Your task to perform on an android device: turn on location history Image 0: 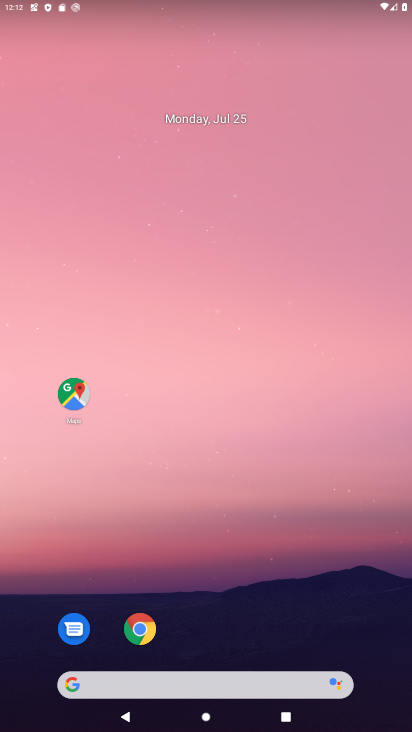
Step 0: drag from (264, 639) to (221, 33)
Your task to perform on an android device: turn on location history Image 1: 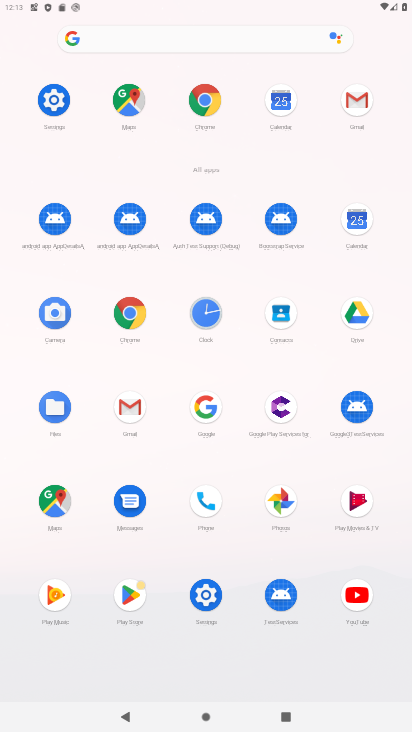
Step 1: click (146, 109)
Your task to perform on an android device: turn on location history Image 2: 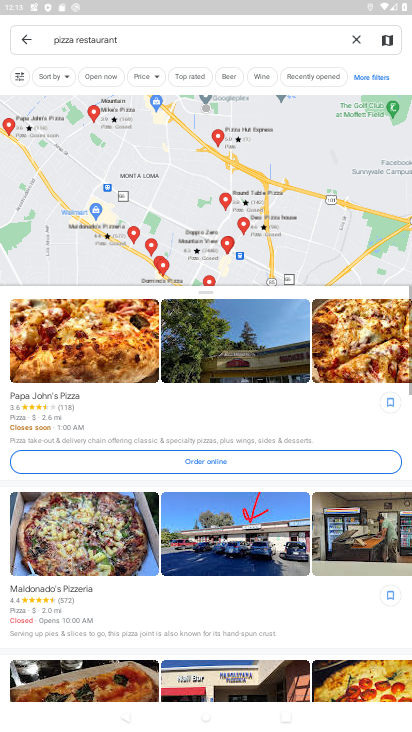
Step 2: click (28, 40)
Your task to perform on an android device: turn on location history Image 3: 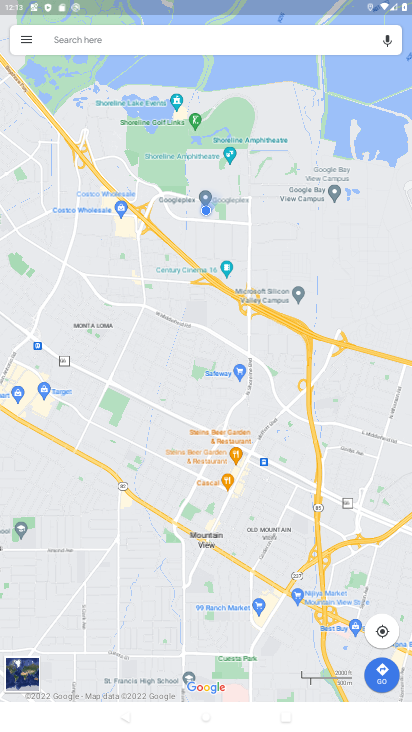
Step 3: click (28, 40)
Your task to perform on an android device: turn on location history Image 4: 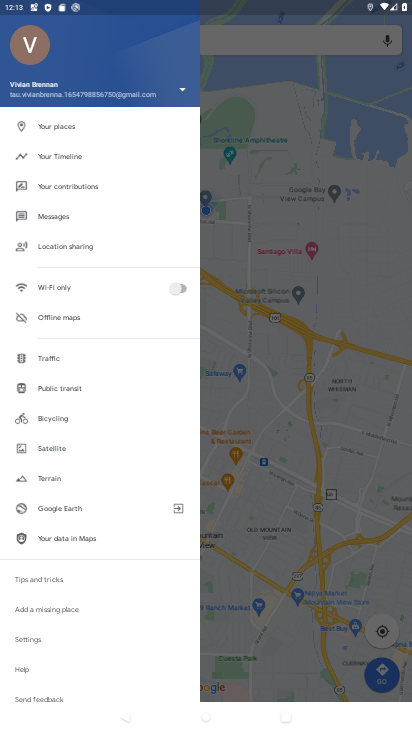
Step 4: click (82, 158)
Your task to perform on an android device: turn on location history Image 5: 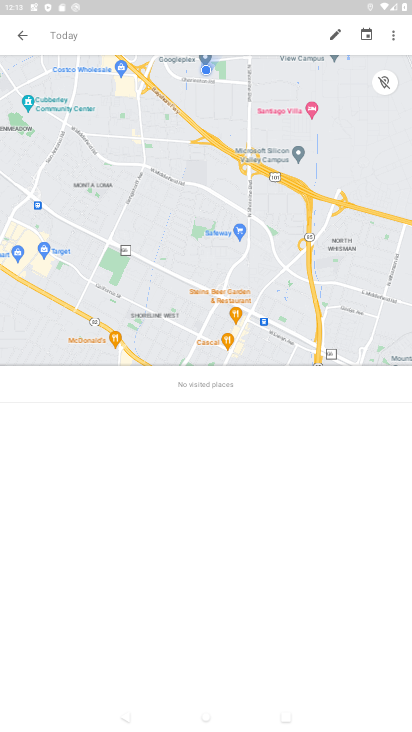
Step 5: click (394, 33)
Your task to perform on an android device: turn on location history Image 6: 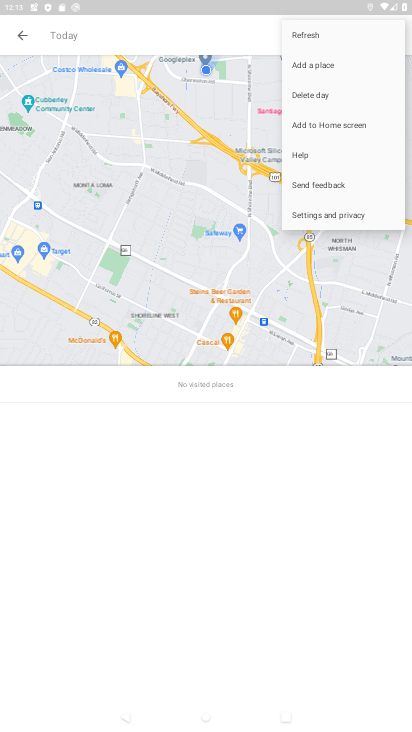
Step 6: click (361, 217)
Your task to perform on an android device: turn on location history Image 7: 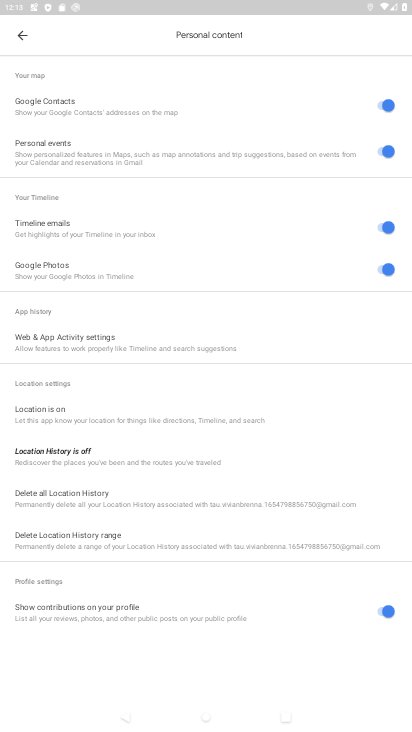
Step 7: click (226, 453)
Your task to perform on an android device: turn on location history Image 8: 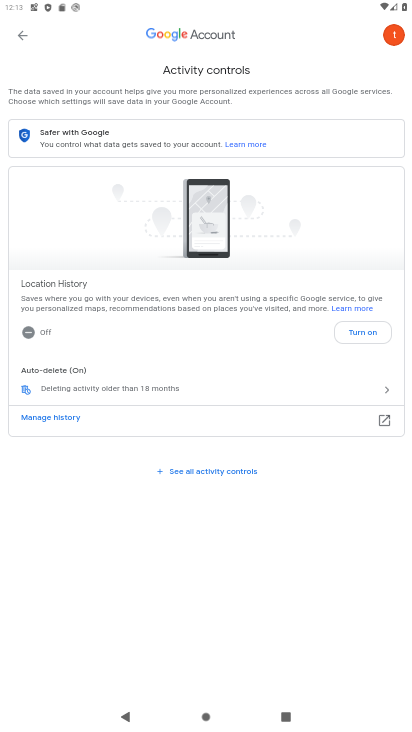
Step 8: click (373, 339)
Your task to perform on an android device: turn on location history Image 9: 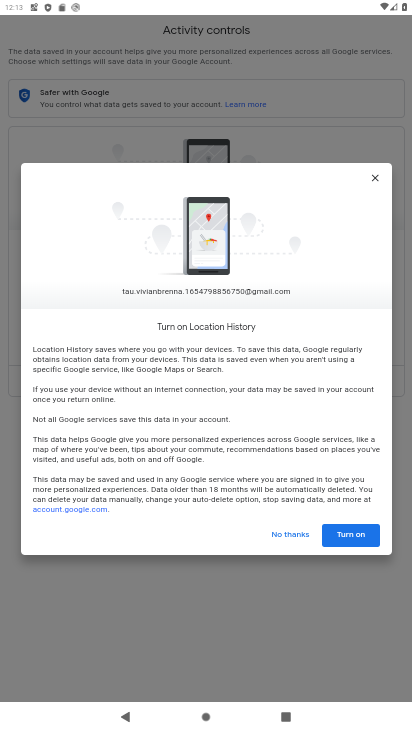
Step 9: click (360, 542)
Your task to perform on an android device: turn on location history Image 10: 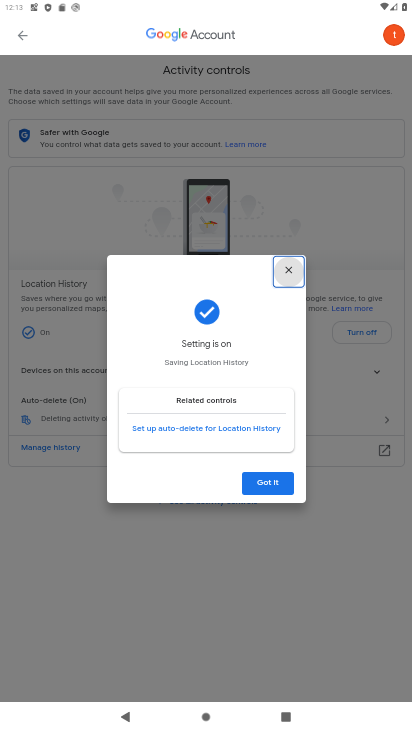
Step 10: click (267, 486)
Your task to perform on an android device: turn on location history Image 11: 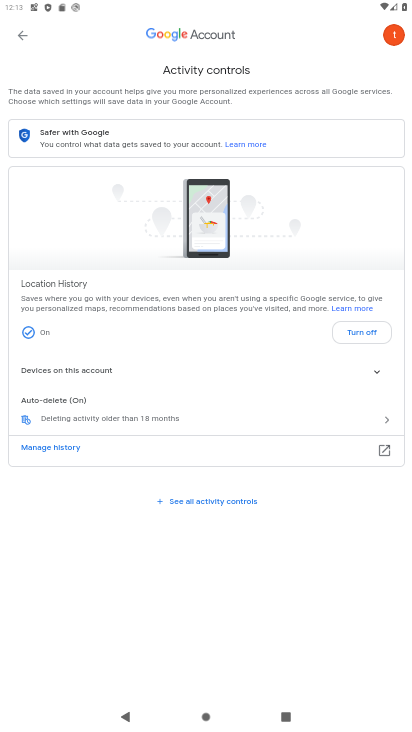
Step 11: task complete